Your task to perform on an android device: toggle notifications settings in the gmail app Image 0: 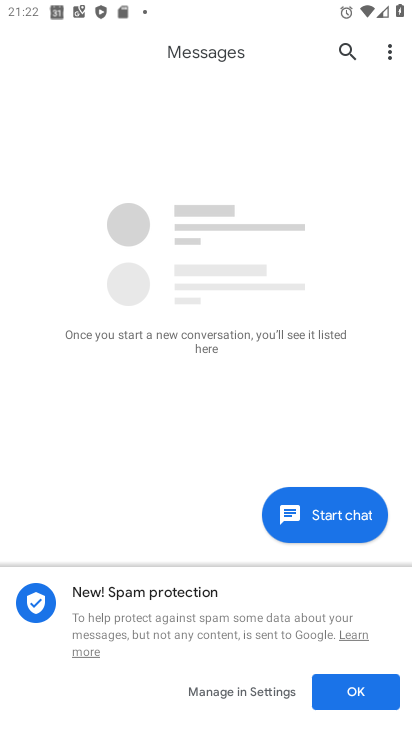
Step 0: press home button
Your task to perform on an android device: toggle notifications settings in the gmail app Image 1: 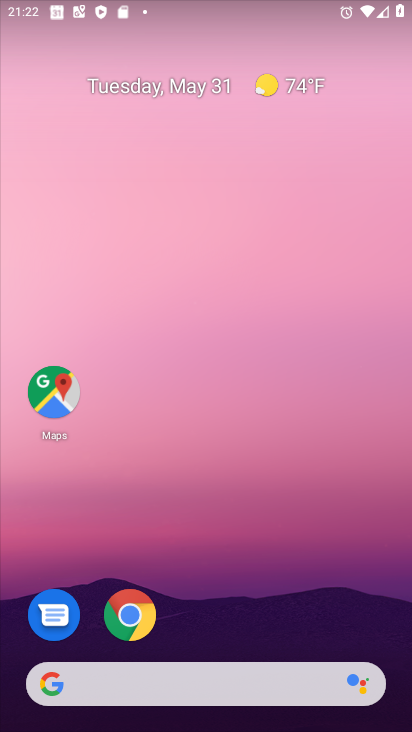
Step 1: drag from (226, 630) to (251, 203)
Your task to perform on an android device: toggle notifications settings in the gmail app Image 2: 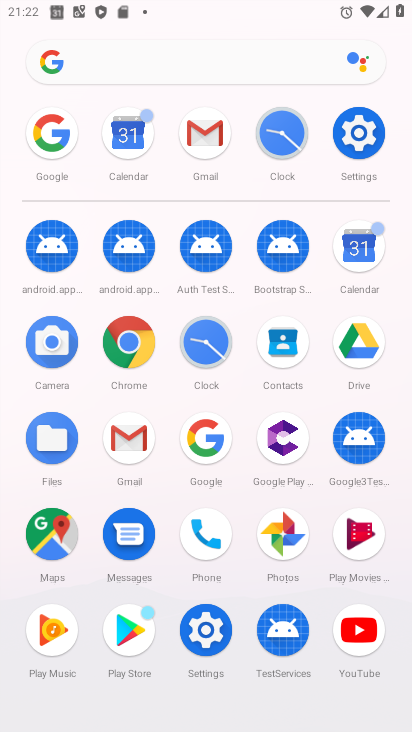
Step 2: click (205, 123)
Your task to perform on an android device: toggle notifications settings in the gmail app Image 3: 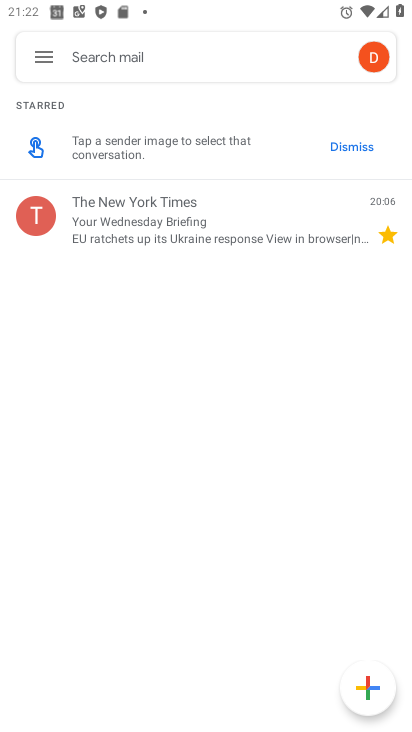
Step 3: click (37, 64)
Your task to perform on an android device: toggle notifications settings in the gmail app Image 4: 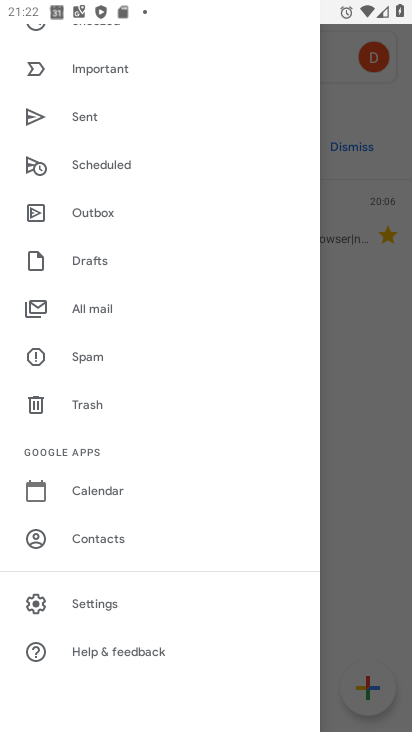
Step 4: click (98, 610)
Your task to perform on an android device: toggle notifications settings in the gmail app Image 5: 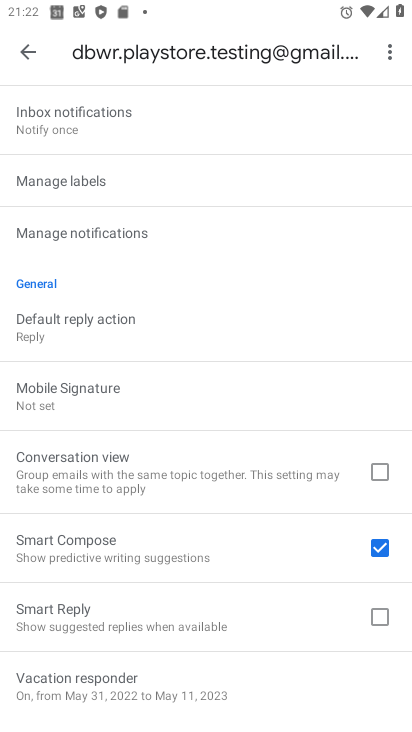
Step 5: click (163, 226)
Your task to perform on an android device: toggle notifications settings in the gmail app Image 6: 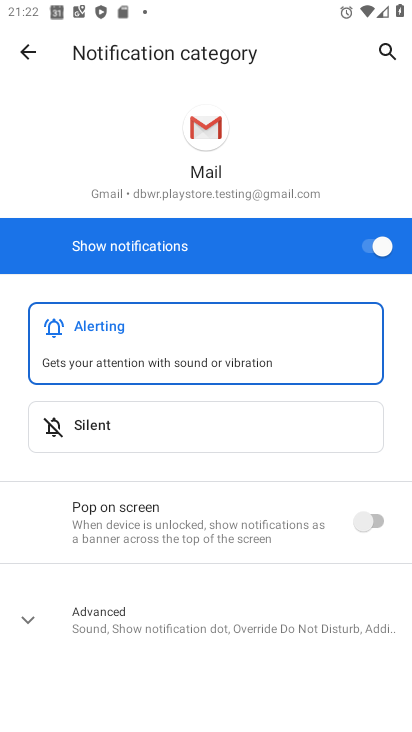
Step 6: drag from (252, 647) to (266, 345)
Your task to perform on an android device: toggle notifications settings in the gmail app Image 7: 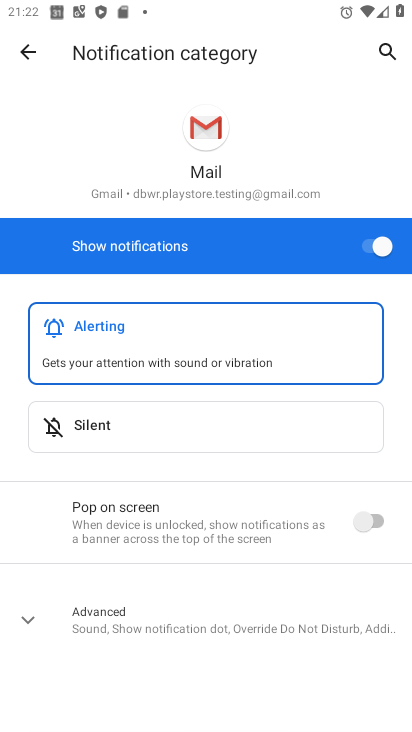
Step 7: click (362, 231)
Your task to perform on an android device: toggle notifications settings in the gmail app Image 8: 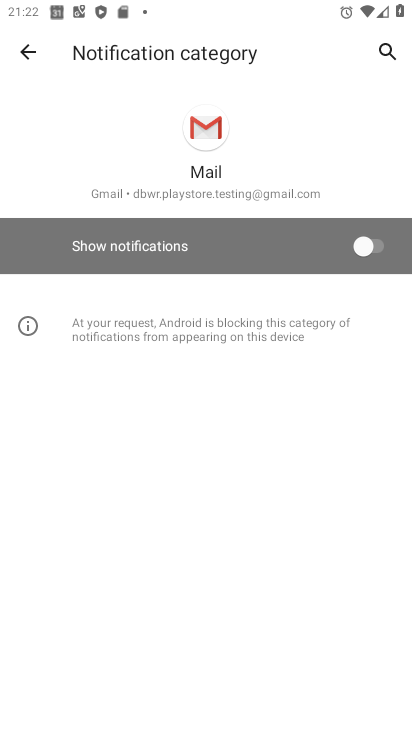
Step 8: task complete